Your task to perform on an android device: toggle notification dots Image 0: 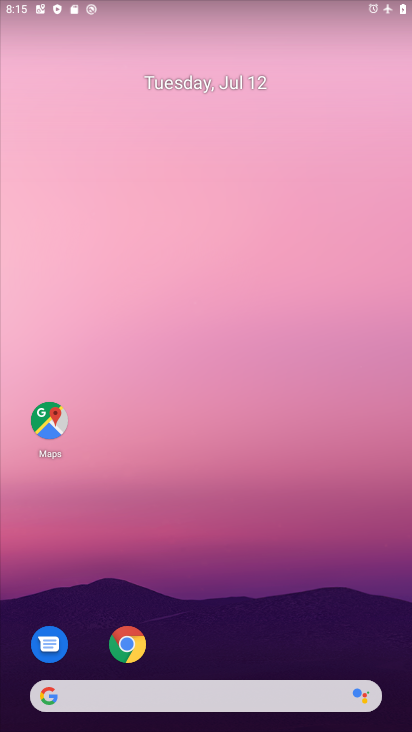
Step 0: drag from (223, 679) to (220, 360)
Your task to perform on an android device: toggle notification dots Image 1: 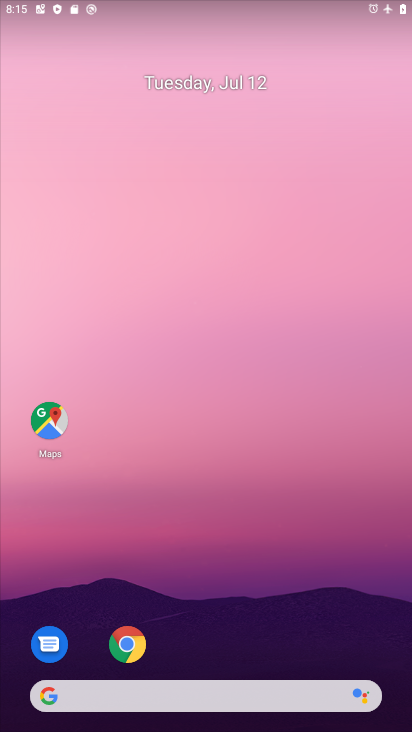
Step 1: drag from (200, 669) to (196, 253)
Your task to perform on an android device: toggle notification dots Image 2: 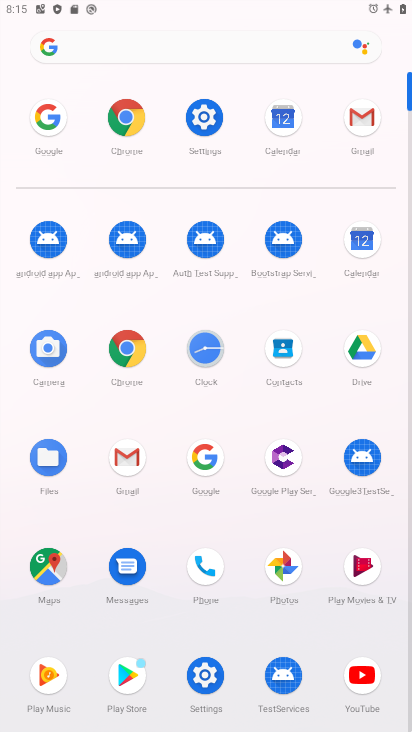
Step 2: click (204, 113)
Your task to perform on an android device: toggle notification dots Image 3: 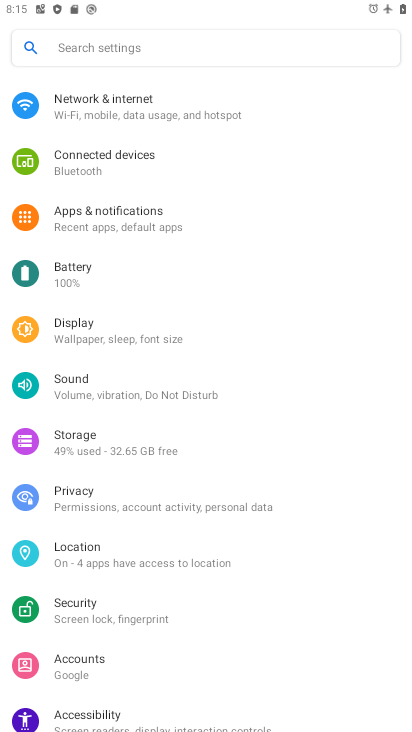
Step 3: click (59, 222)
Your task to perform on an android device: toggle notification dots Image 4: 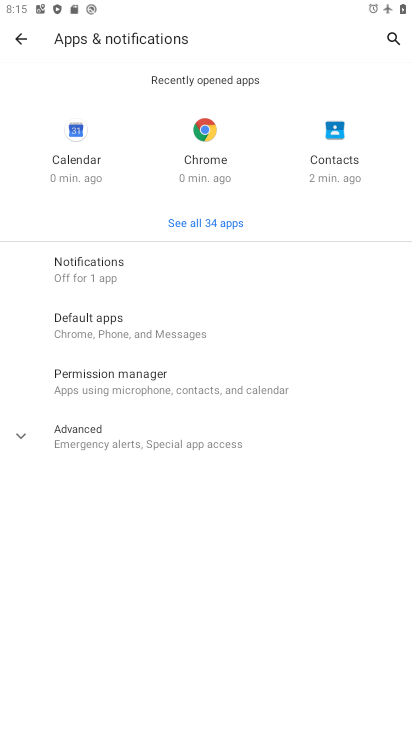
Step 4: click (59, 276)
Your task to perform on an android device: toggle notification dots Image 5: 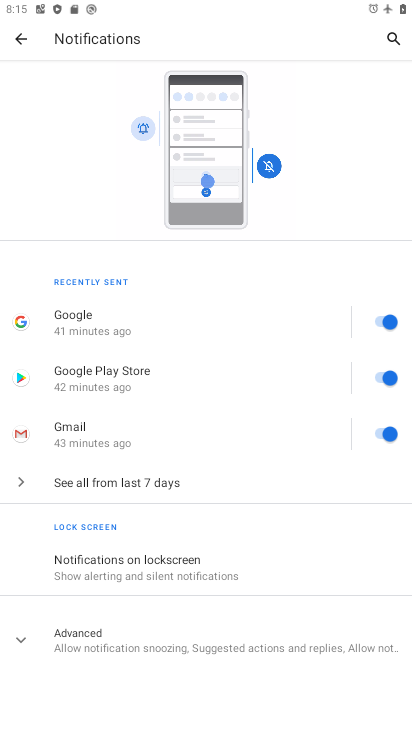
Step 5: click (114, 570)
Your task to perform on an android device: toggle notification dots Image 6: 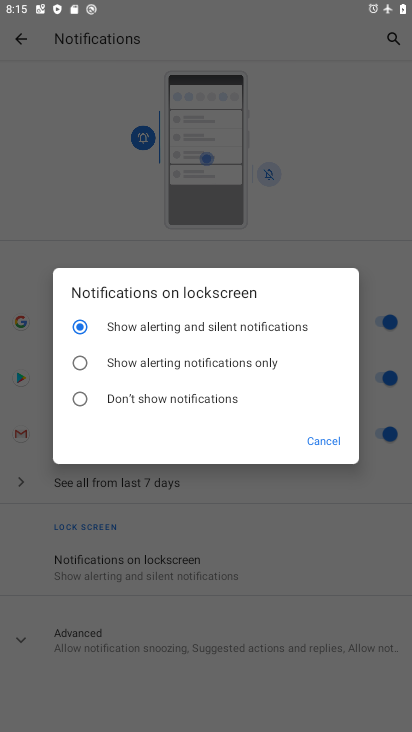
Step 6: click (311, 440)
Your task to perform on an android device: toggle notification dots Image 7: 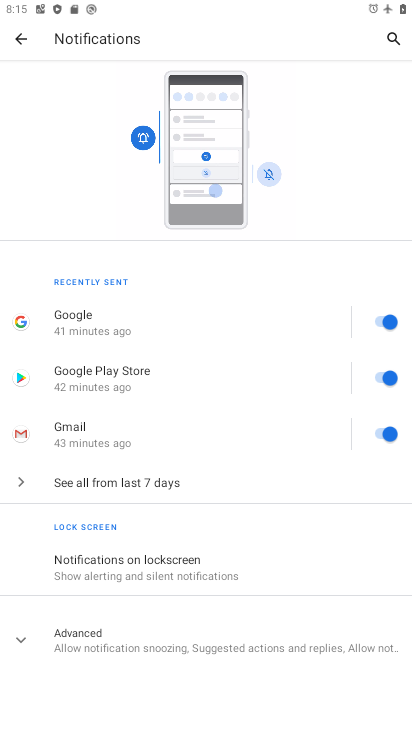
Step 7: click (99, 637)
Your task to perform on an android device: toggle notification dots Image 8: 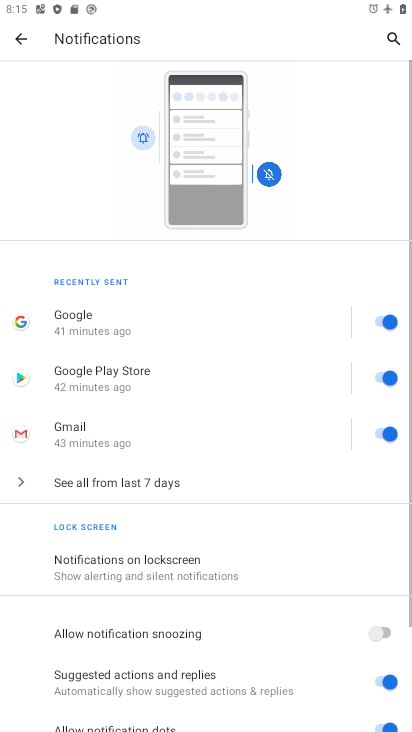
Step 8: drag from (227, 656) to (225, 258)
Your task to perform on an android device: toggle notification dots Image 9: 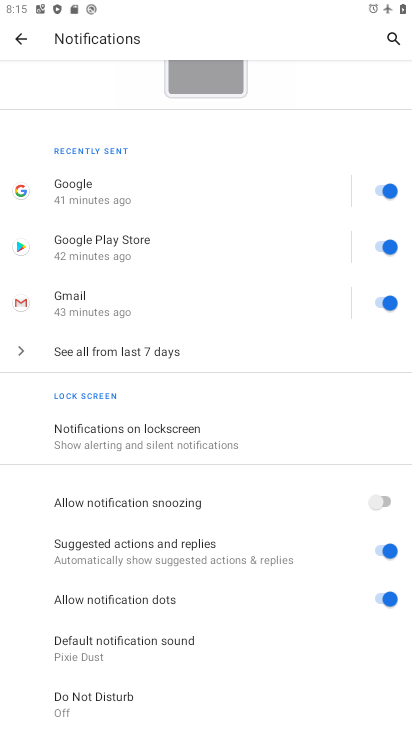
Step 9: click (379, 597)
Your task to perform on an android device: toggle notification dots Image 10: 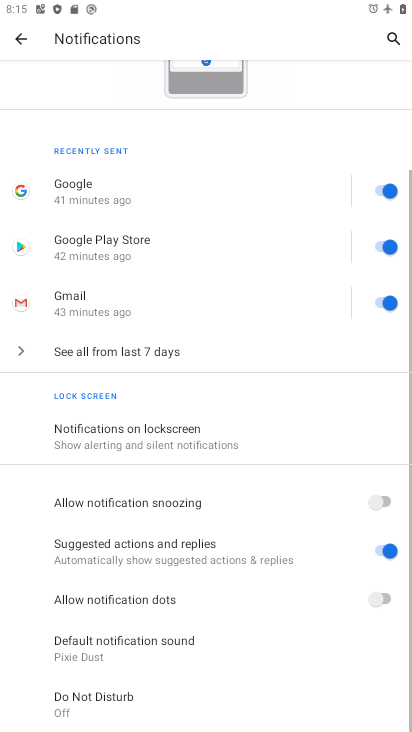
Step 10: task complete